Your task to perform on an android device: Toggle the flashlight Image 0: 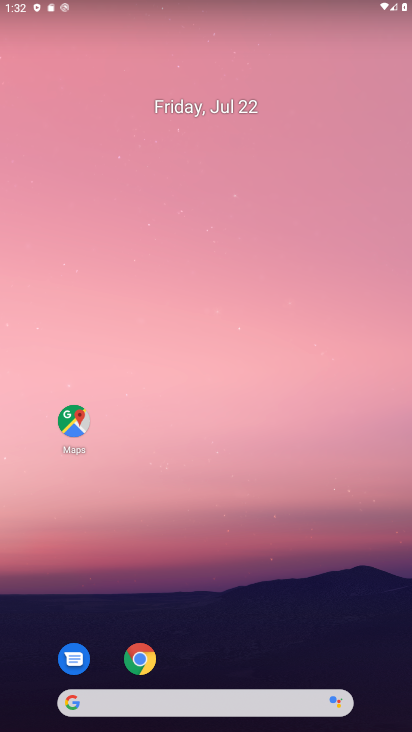
Step 0: drag from (281, 651) to (215, 102)
Your task to perform on an android device: Toggle the flashlight Image 1: 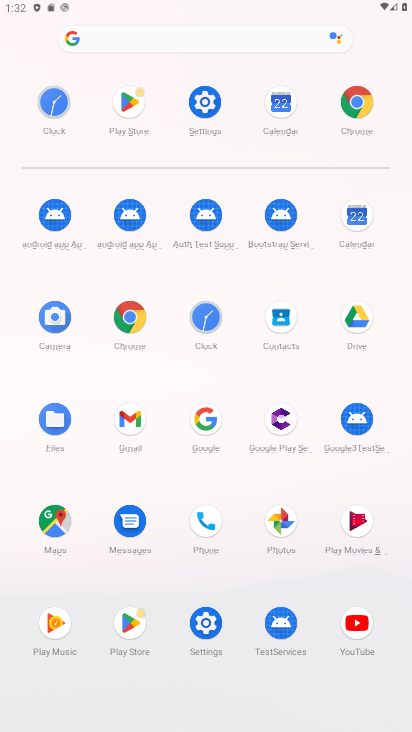
Step 1: click (212, 107)
Your task to perform on an android device: Toggle the flashlight Image 2: 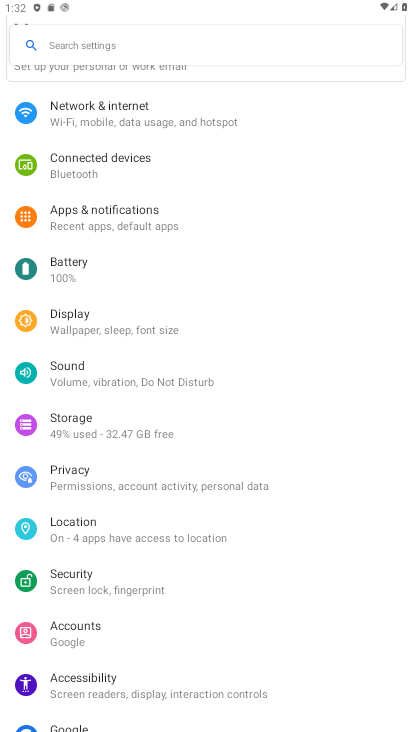
Step 2: task complete